Your task to perform on an android device: Go to Amazon Image 0: 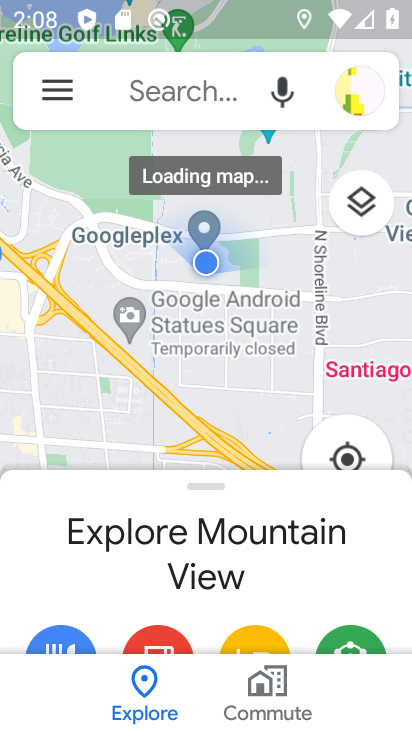
Step 0: press home button
Your task to perform on an android device: Go to Amazon Image 1: 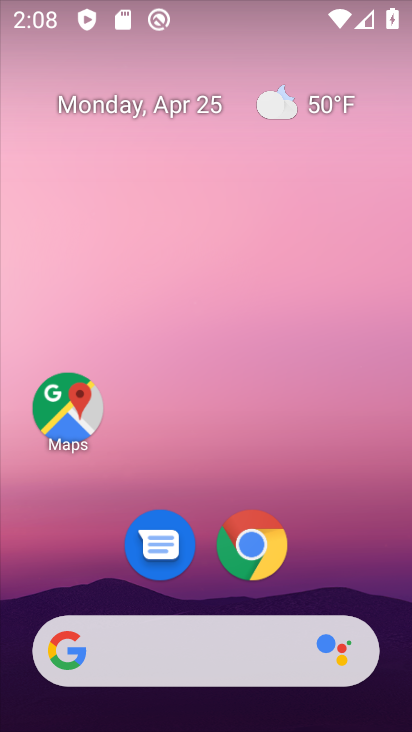
Step 1: click (255, 548)
Your task to perform on an android device: Go to Amazon Image 2: 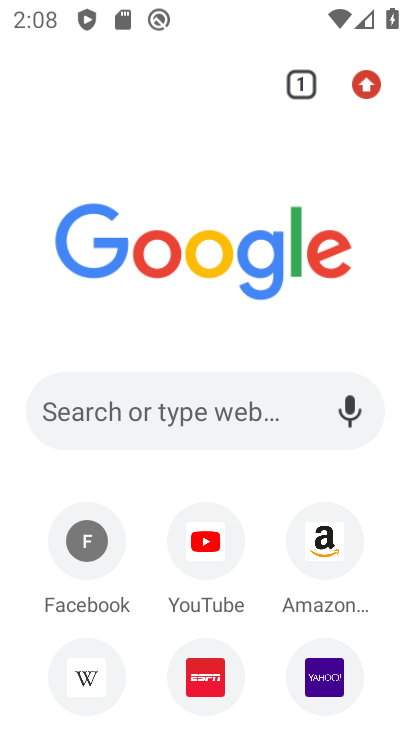
Step 2: click (332, 538)
Your task to perform on an android device: Go to Amazon Image 3: 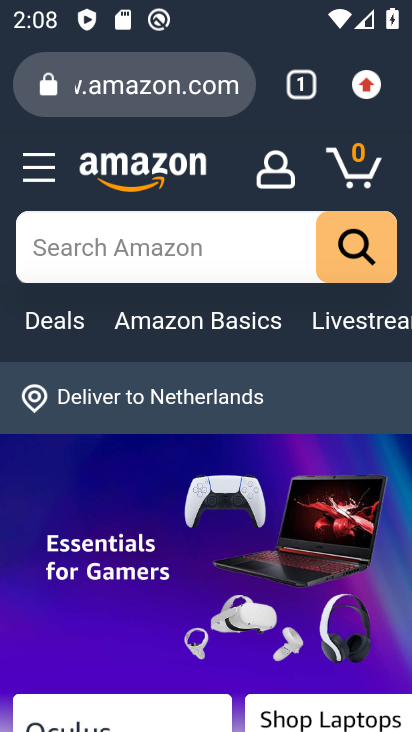
Step 3: task complete